Your task to perform on an android device: add a contact Image 0: 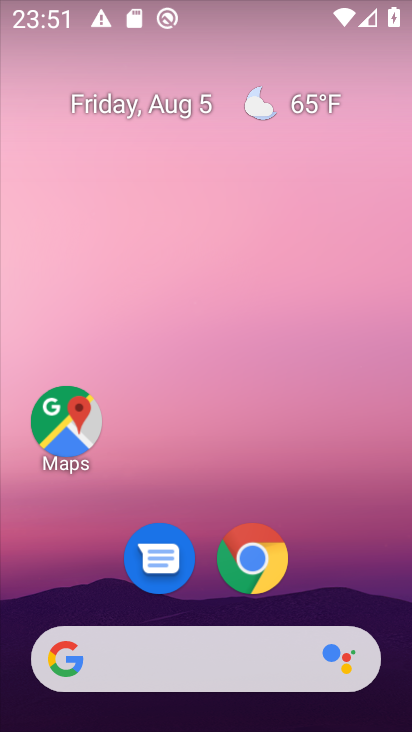
Step 0: press home button
Your task to perform on an android device: add a contact Image 1: 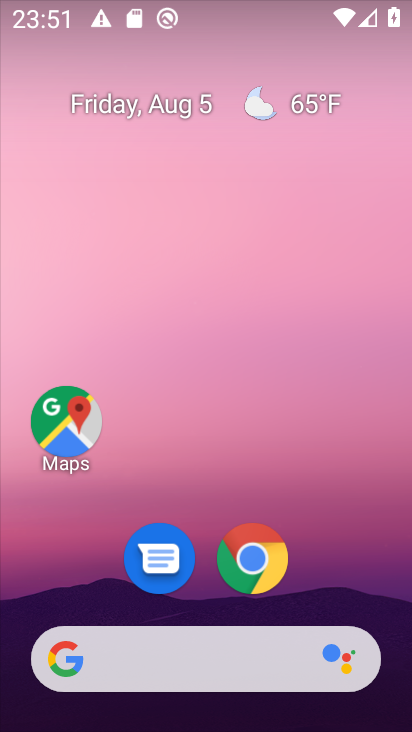
Step 1: drag from (348, 607) to (359, 196)
Your task to perform on an android device: add a contact Image 2: 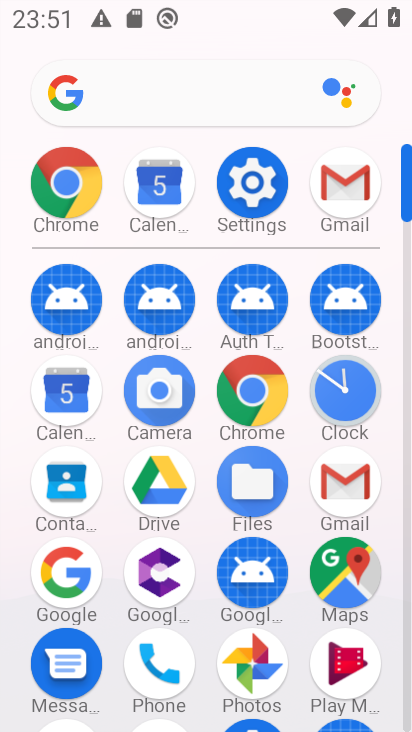
Step 2: click (77, 482)
Your task to perform on an android device: add a contact Image 3: 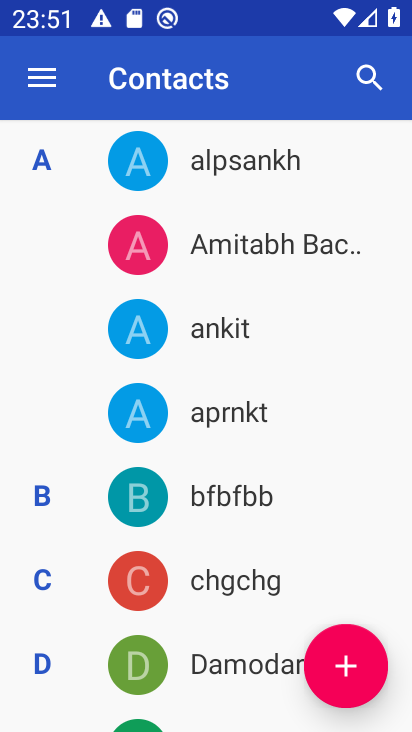
Step 3: click (349, 658)
Your task to perform on an android device: add a contact Image 4: 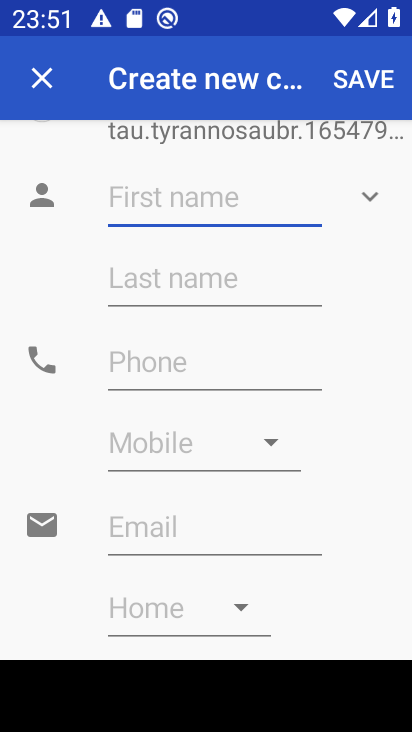
Step 4: type "lololo"
Your task to perform on an android device: add a contact Image 5: 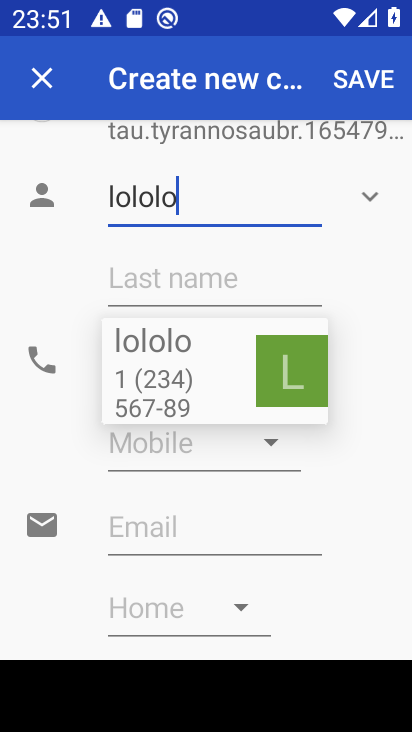
Step 5: click (383, 294)
Your task to perform on an android device: add a contact Image 6: 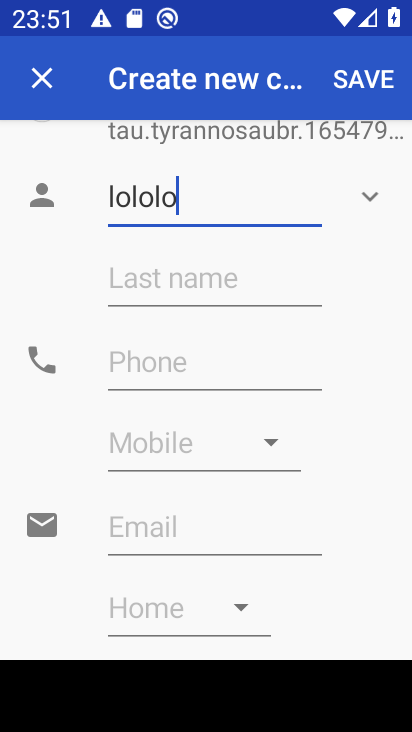
Step 6: click (237, 363)
Your task to perform on an android device: add a contact Image 7: 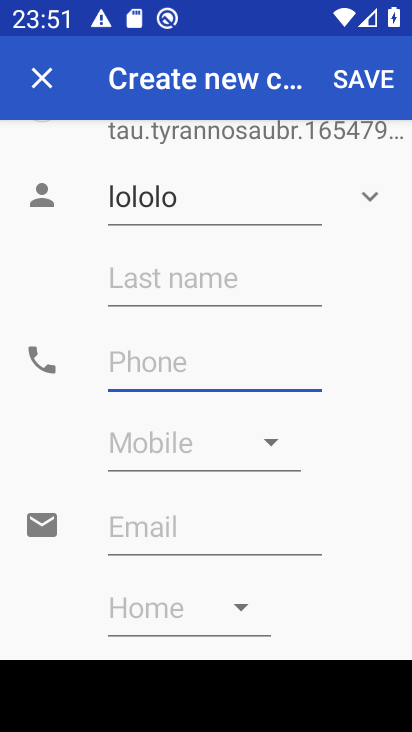
Step 7: type "1234567890"
Your task to perform on an android device: add a contact Image 8: 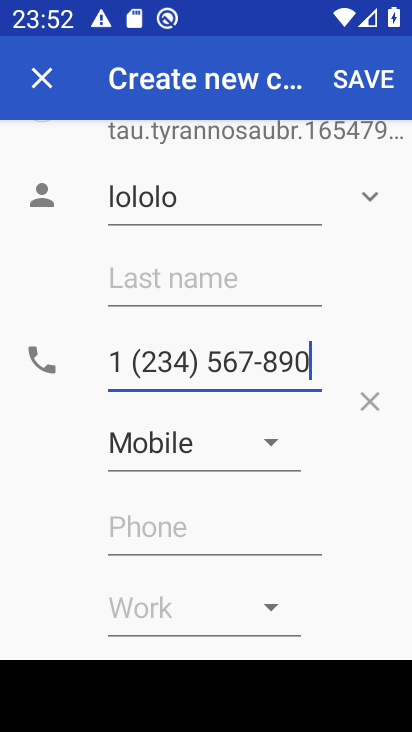
Step 8: click (380, 77)
Your task to perform on an android device: add a contact Image 9: 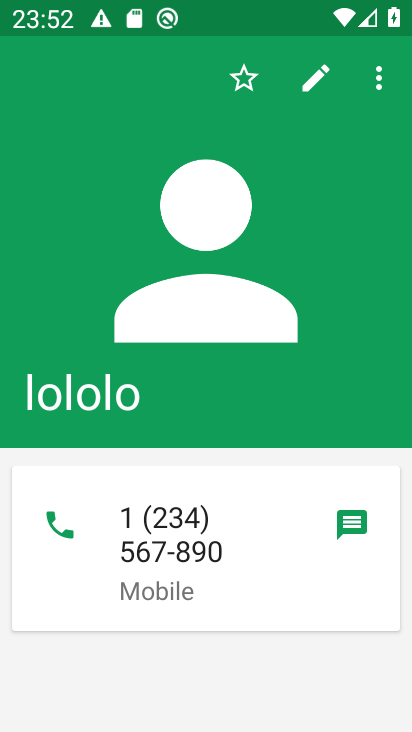
Step 9: task complete